Your task to perform on an android device: check battery use Image 0: 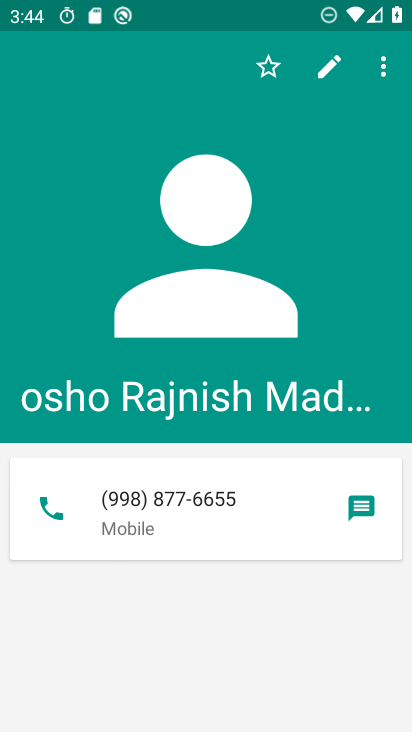
Step 0: click (387, 62)
Your task to perform on an android device: check battery use Image 1: 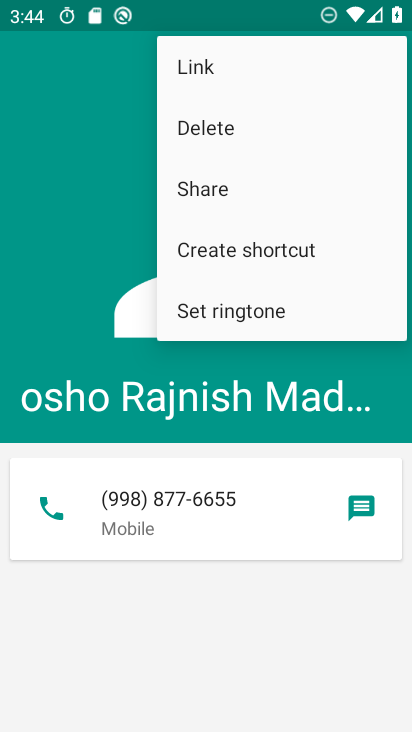
Step 1: press home button
Your task to perform on an android device: check battery use Image 2: 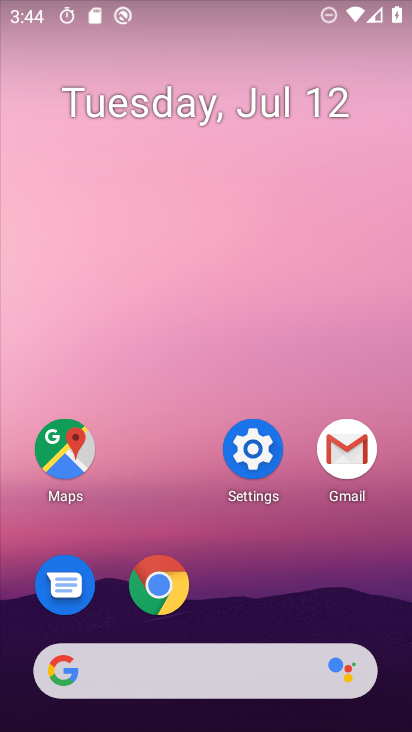
Step 2: click (240, 448)
Your task to perform on an android device: check battery use Image 3: 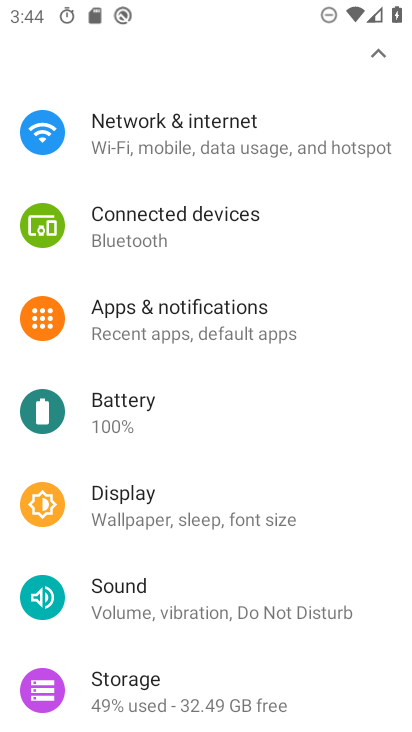
Step 3: drag from (347, 644) to (310, 258)
Your task to perform on an android device: check battery use Image 4: 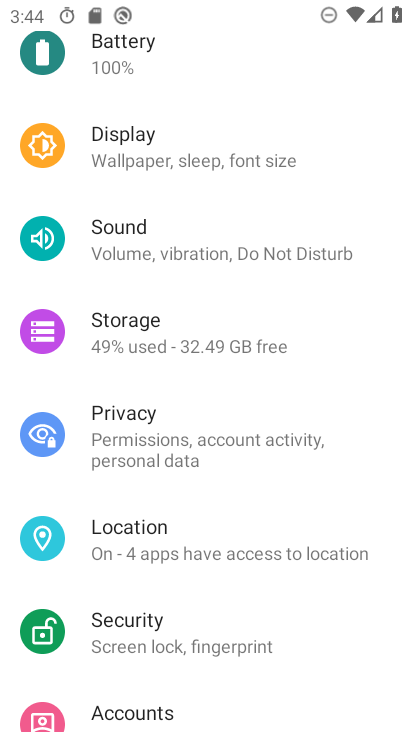
Step 4: click (121, 51)
Your task to perform on an android device: check battery use Image 5: 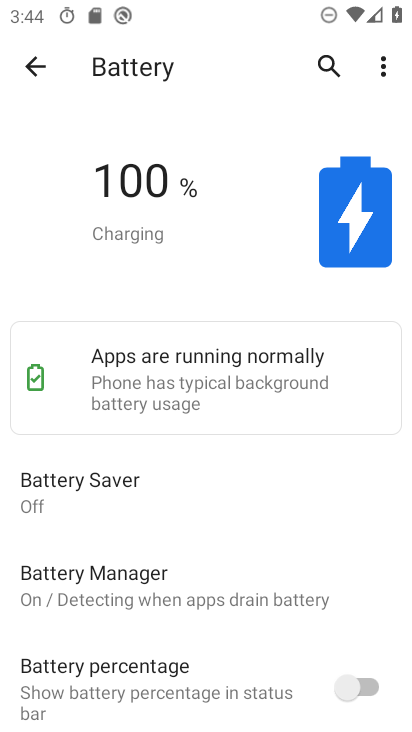
Step 5: click (384, 62)
Your task to perform on an android device: check battery use Image 6: 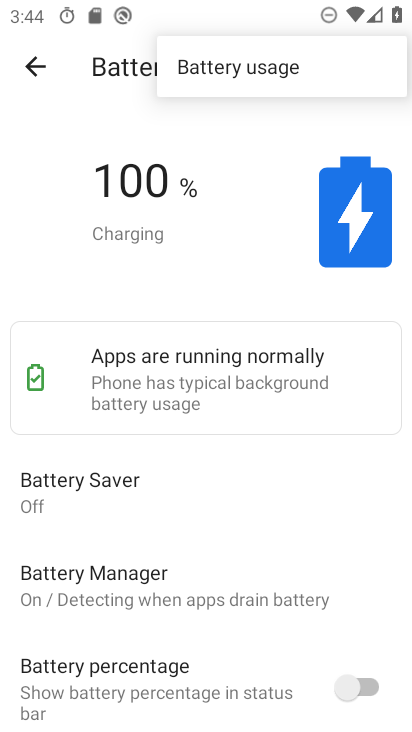
Step 6: click (300, 59)
Your task to perform on an android device: check battery use Image 7: 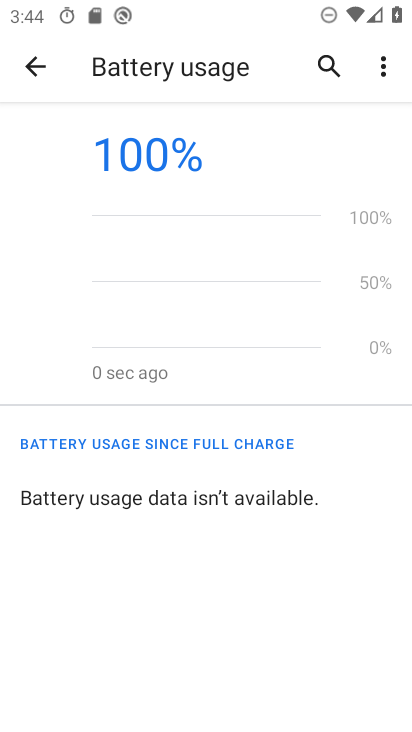
Step 7: task complete